Your task to perform on an android device: turn notification dots on Image 0: 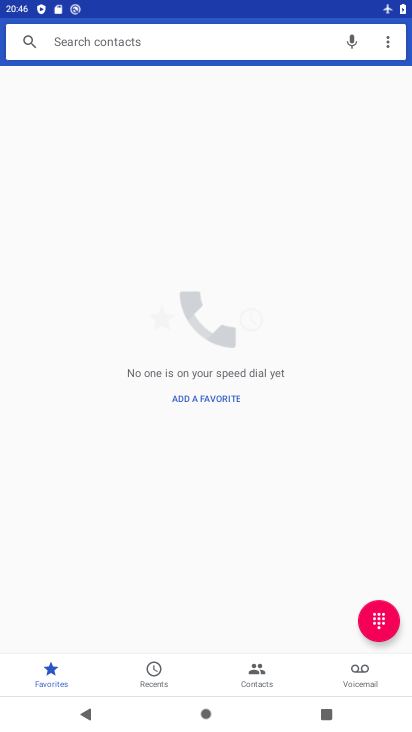
Step 0: press home button
Your task to perform on an android device: turn notification dots on Image 1: 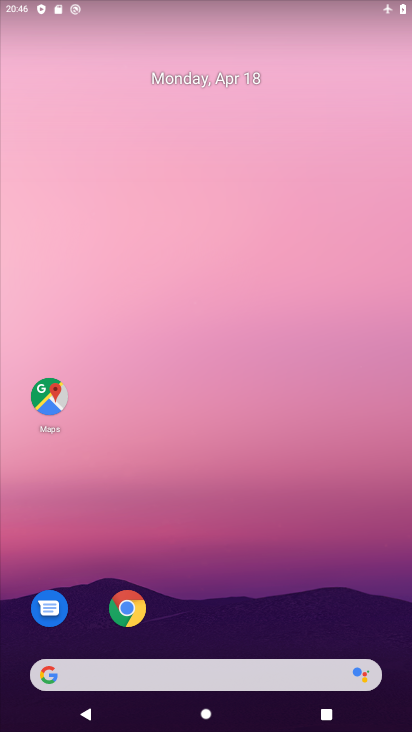
Step 1: drag from (247, 526) to (278, 98)
Your task to perform on an android device: turn notification dots on Image 2: 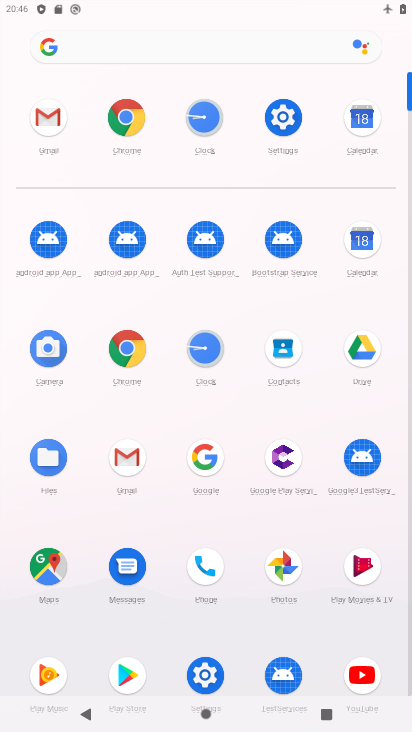
Step 2: click (280, 113)
Your task to perform on an android device: turn notification dots on Image 3: 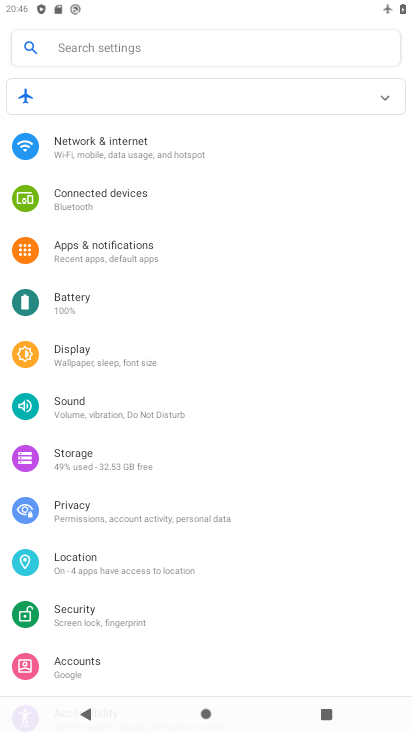
Step 3: click (98, 255)
Your task to perform on an android device: turn notification dots on Image 4: 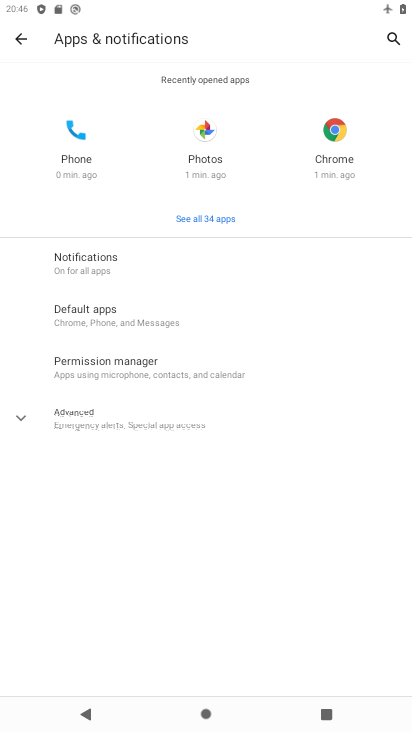
Step 4: click (106, 271)
Your task to perform on an android device: turn notification dots on Image 5: 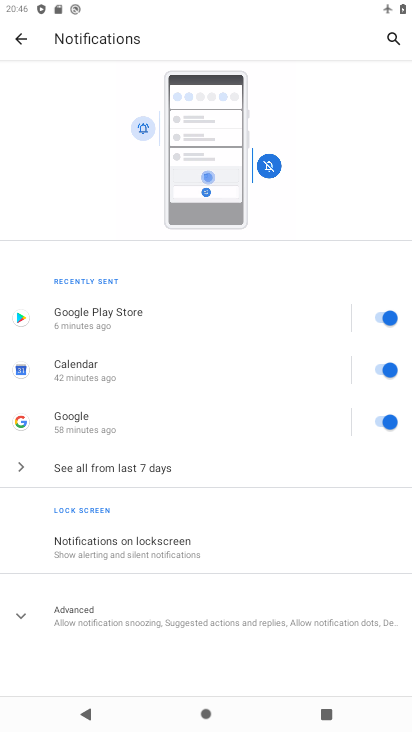
Step 5: click (119, 614)
Your task to perform on an android device: turn notification dots on Image 6: 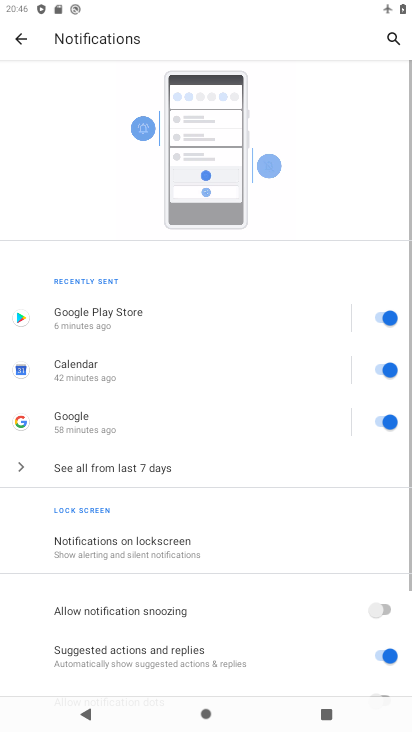
Step 6: drag from (252, 587) to (282, 274)
Your task to perform on an android device: turn notification dots on Image 7: 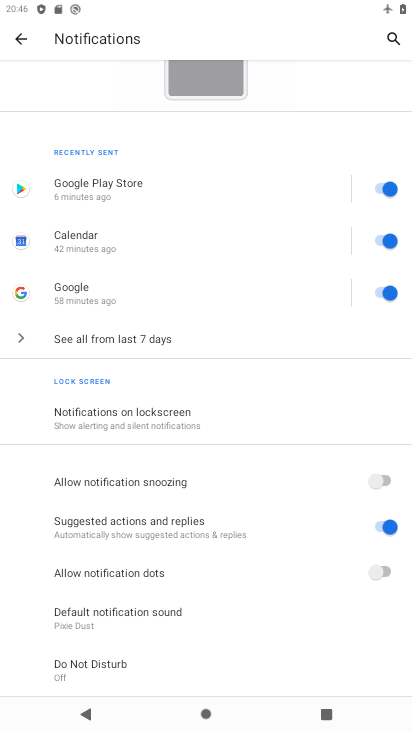
Step 7: click (384, 573)
Your task to perform on an android device: turn notification dots on Image 8: 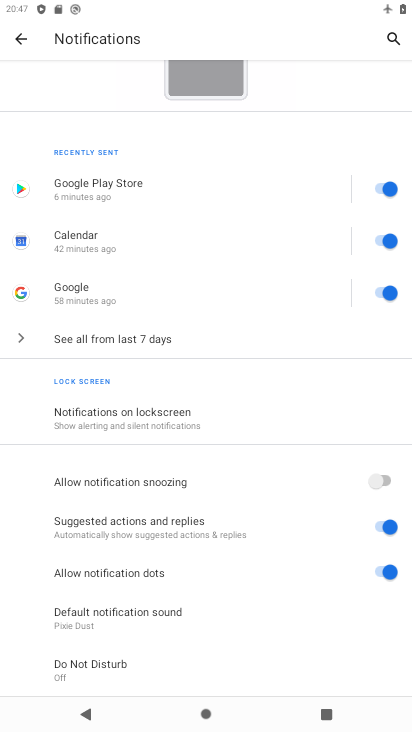
Step 8: task complete